Your task to perform on an android device: turn pop-ups on in chrome Image 0: 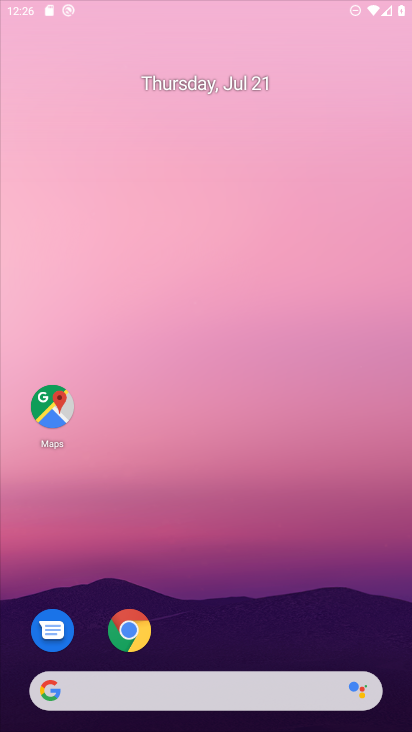
Step 0: click (229, 113)
Your task to perform on an android device: turn pop-ups on in chrome Image 1: 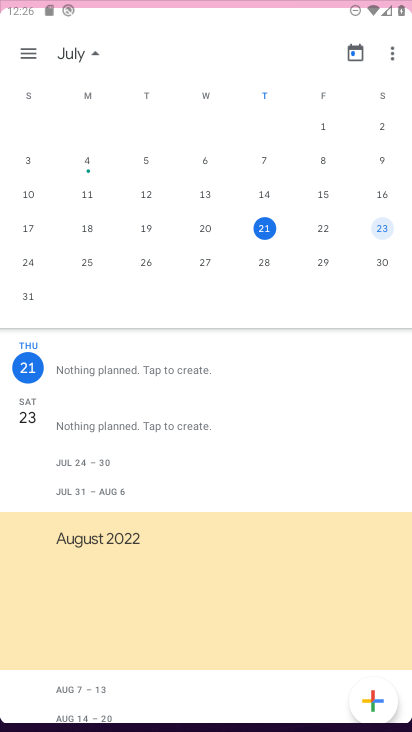
Step 1: drag from (222, 631) to (297, 115)
Your task to perform on an android device: turn pop-ups on in chrome Image 2: 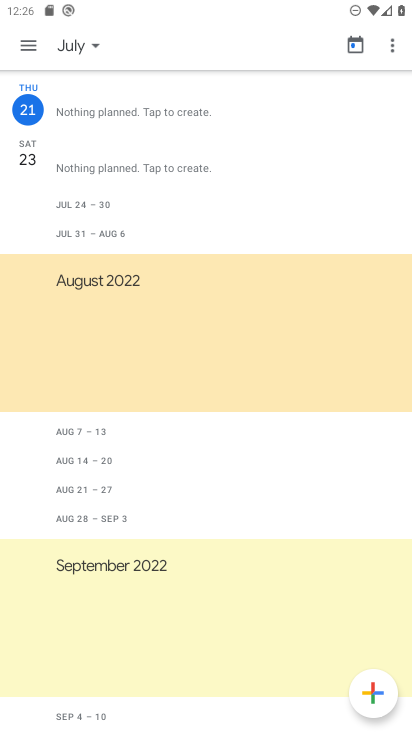
Step 2: press home button
Your task to perform on an android device: turn pop-ups on in chrome Image 3: 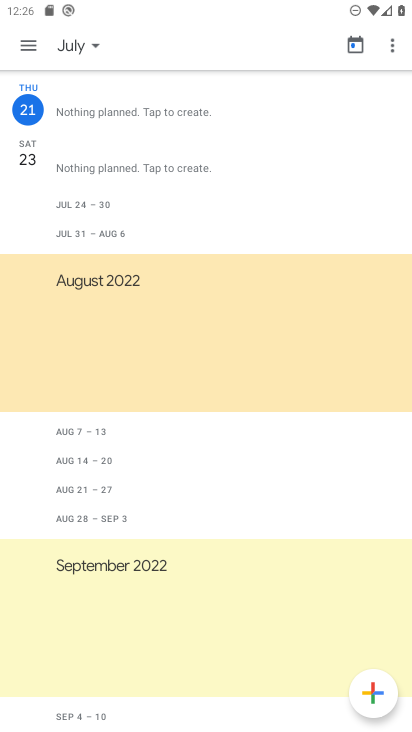
Step 3: press home button
Your task to perform on an android device: turn pop-ups on in chrome Image 4: 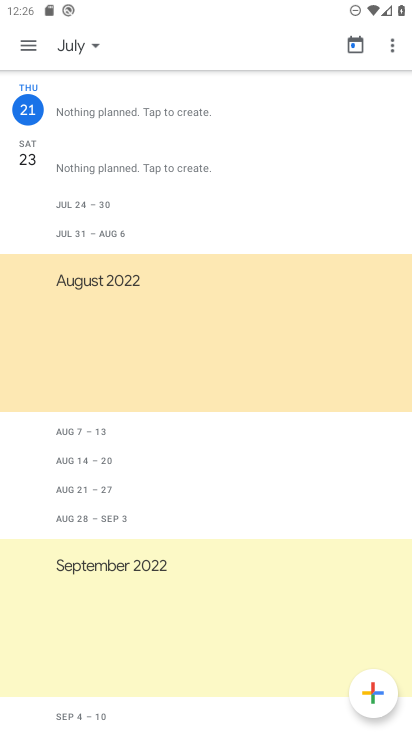
Step 4: click (227, 65)
Your task to perform on an android device: turn pop-ups on in chrome Image 5: 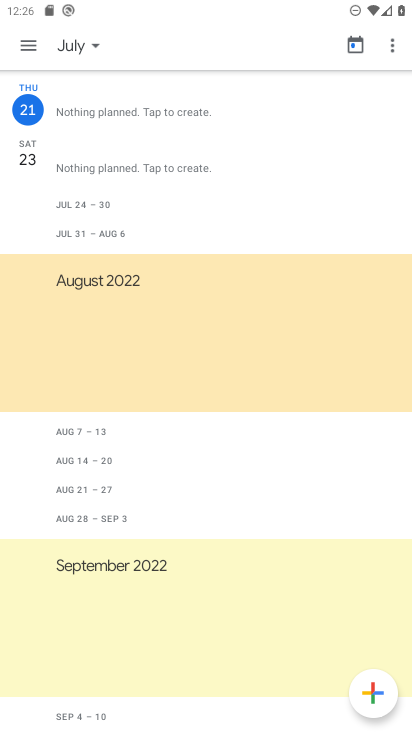
Step 5: press home button
Your task to perform on an android device: turn pop-ups on in chrome Image 6: 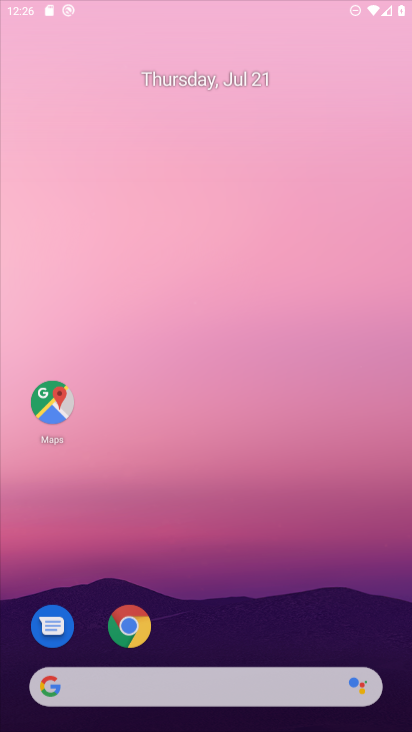
Step 6: drag from (169, 670) to (193, 7)
Your task to perform on an android device: turn pop-ups on in chrome Image 7: 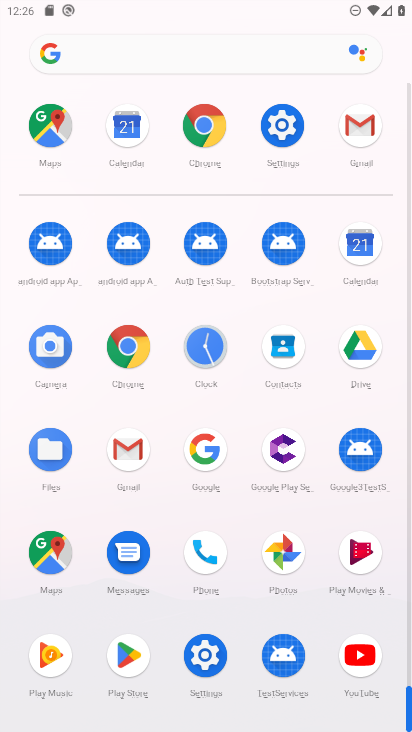
Step 7: click (125, 349)
Your task to perform on an android device: turn pop-ups on in chrome Image 8: 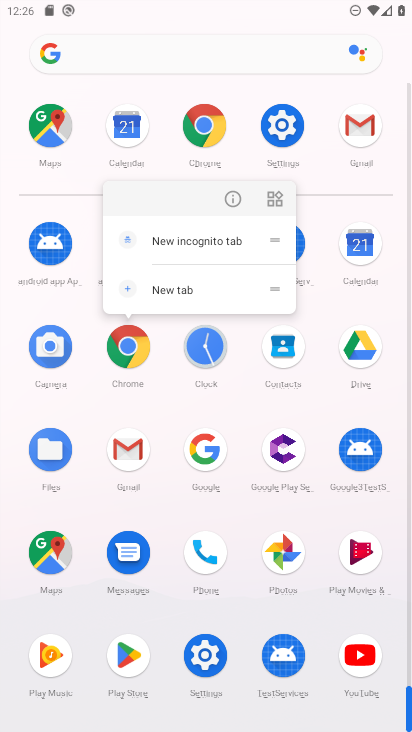
Step 8: click (225, 198)
Your task to perform on an android device: turn pop-ups on in chrome Image 9: 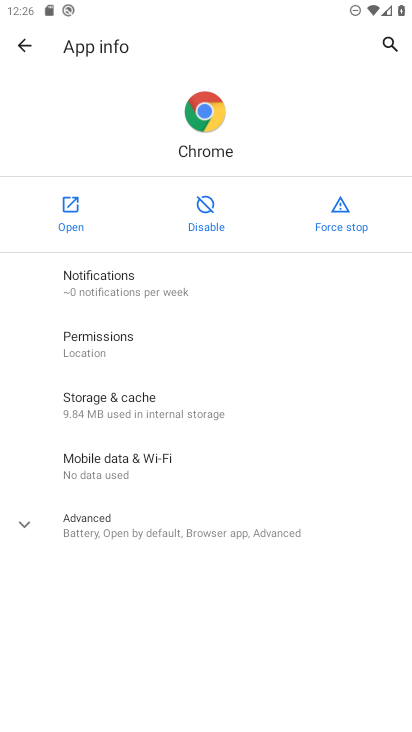
Step 9: click (73, 209)
Your task to perform on an android device: turn pop-ups on in chrome Image 10: 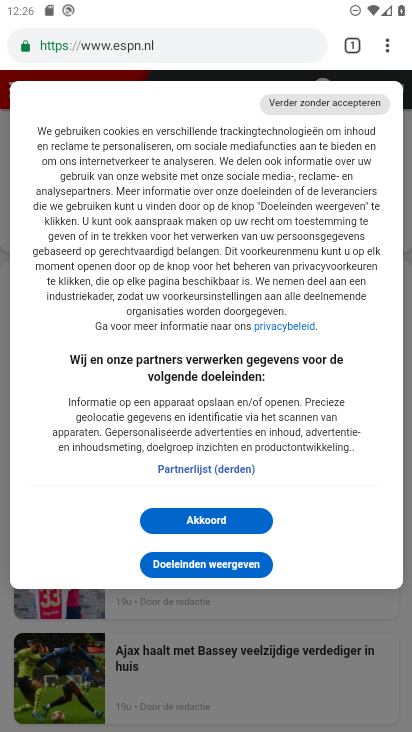
Step 10: drag from (392, 42) to (252, 545)
Your task to perform on an android device: turn pop-ups on in chrome Image 11: 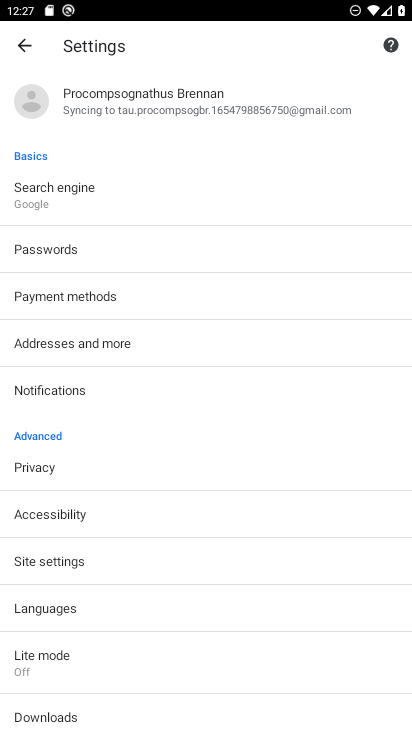
Step 11: click (66, 555)
Your task to perform on an android device: turn pop-ups on in chrome Image 12: 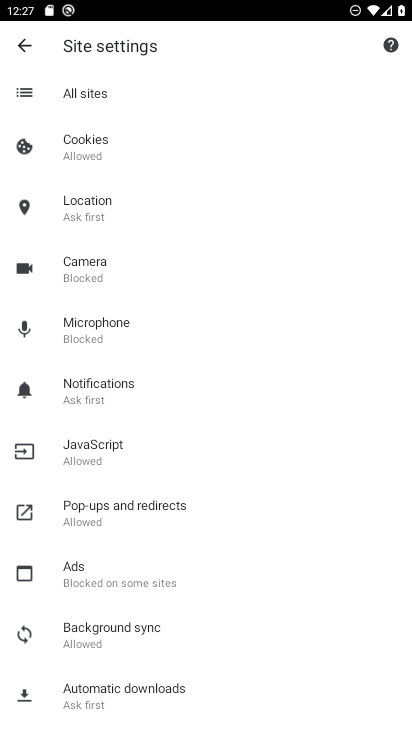
Step 12: click (121, 515)
Your task to perform on an android device: turn pop-ups on in chrome Image 13: 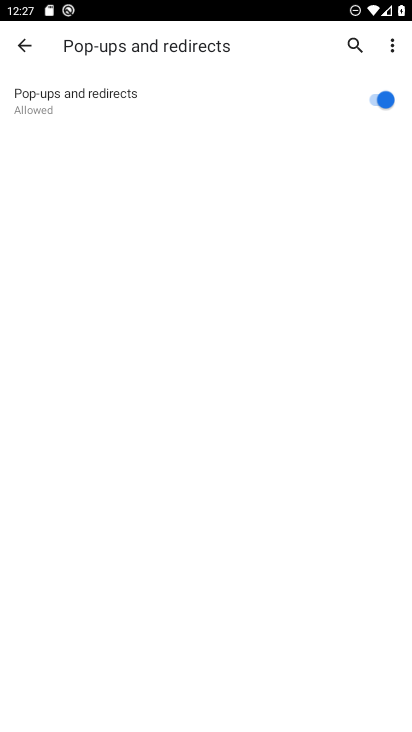
Step 13: task complete